Your task to perform on an android device: Is it going to rain tomorrow? Image 0: 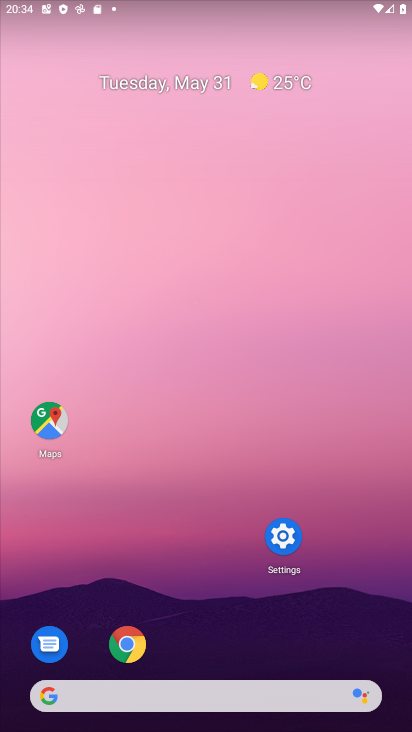
Step 0: drag from (252, 703) to (264, 231)
Your task to perform on an android device: Is it going to rain tomorrow? Image 1: 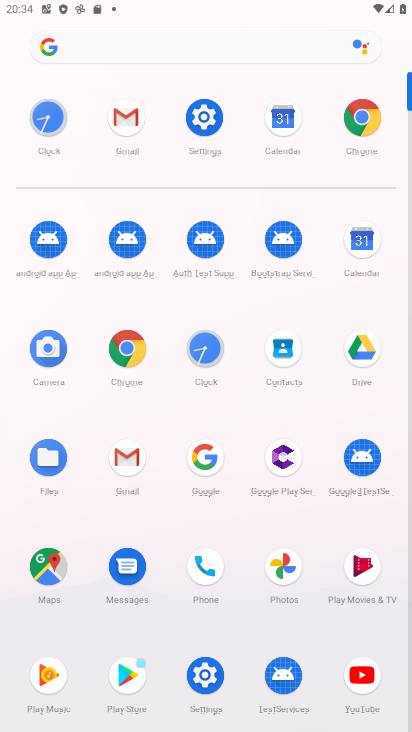
Step 1: click (118, 40)
Your task to perform on an android device: Is it going to rain tomorrow? Image 2: 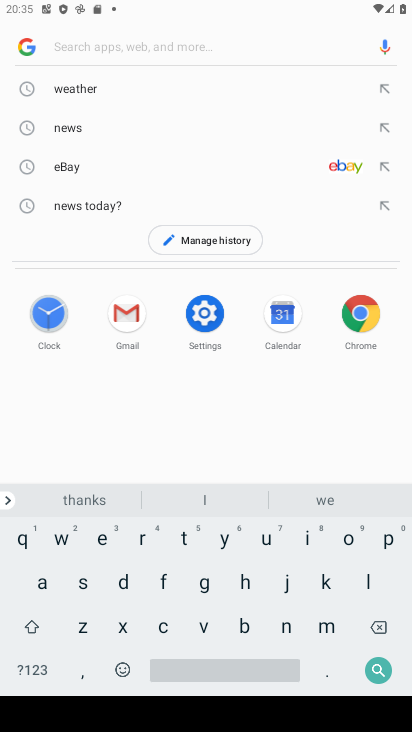
Step 2: click (134, 537)
Your task to perform on an android device: Is it going to rain tomorrow? Image 3: 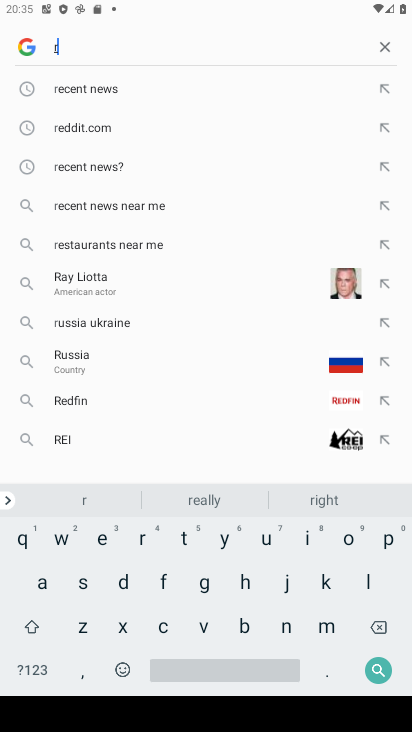
Step 3: click (37, 586)
Your task to perform on an android device: Is it going to rain tomorrow? Image 4: 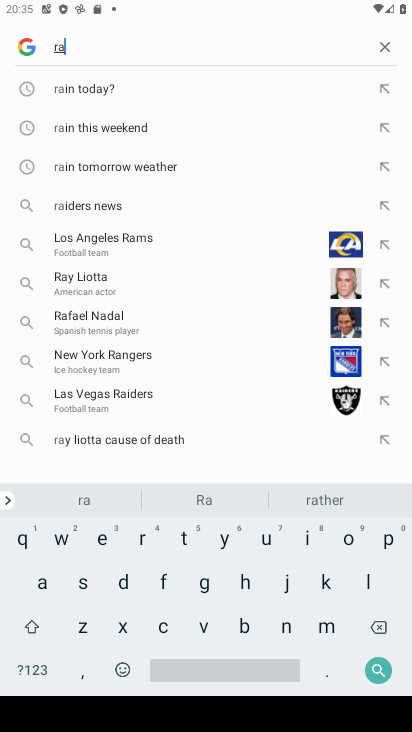
Step 4: click (105, 83)
Your task to perform on an android device: Is it going to rain tomorrow? Image 5: 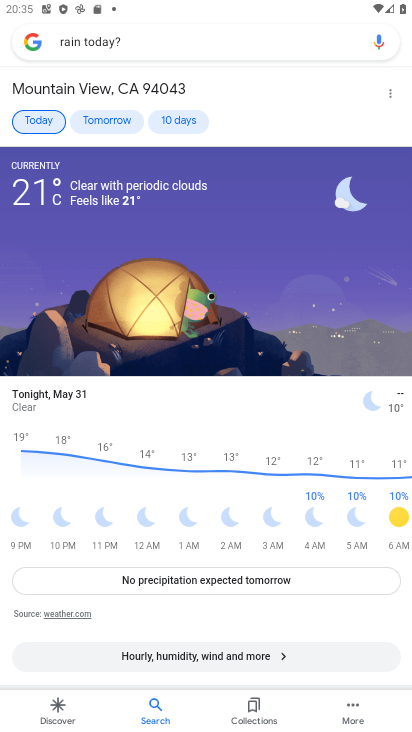
Step 5: task complete